Your task to perform on an android device: refresh tabs in the chrome app Image 0: 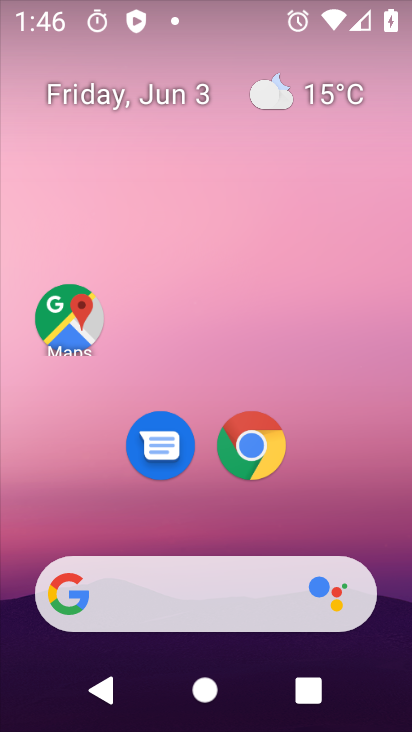
Step 0: click (244, 461)
Your task to perform on an android device: refresh tabs in the chrome app Image 1: 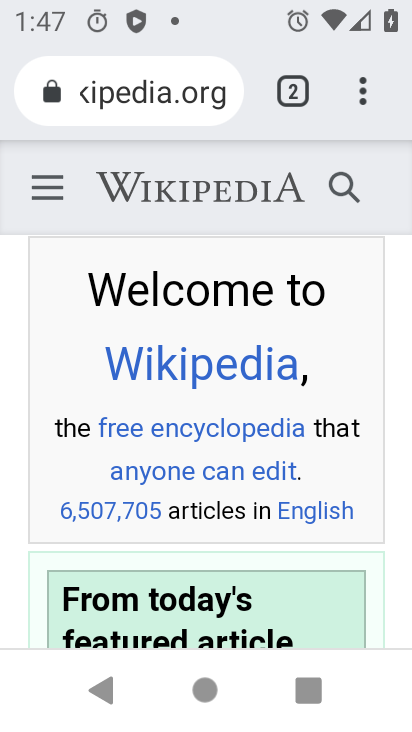
Step 1: click (372, 98)
Your task to perform on an android device: refresh tabs in the chrome app Image 2: 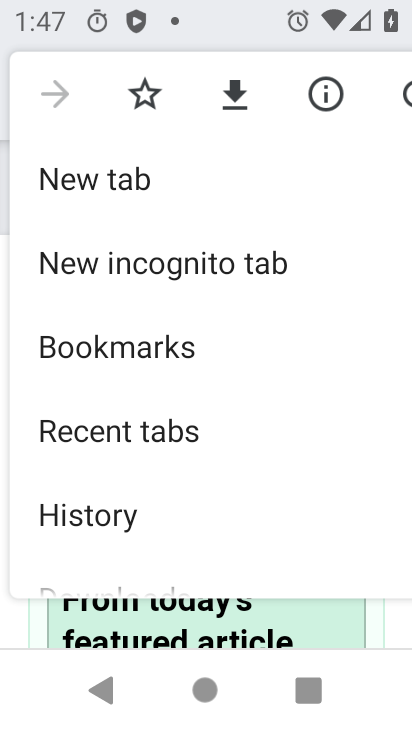
Step 2: click (398, 91)
Your task to perform on an android device: refresh tabs in the chrome app Image 3: 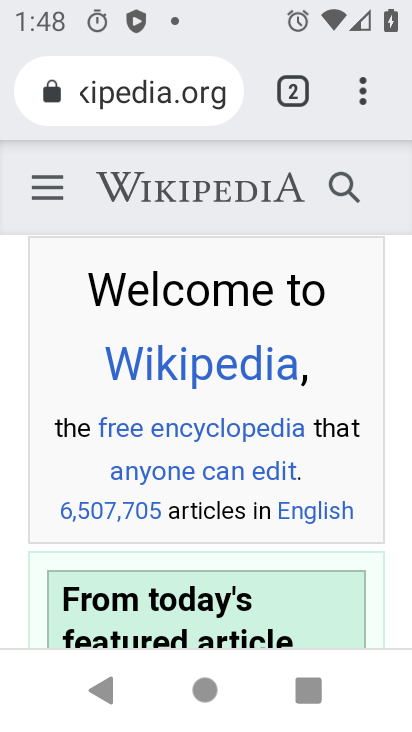
Step 3: task complete